Your task to perform on an android device: Open location settings Image 0: 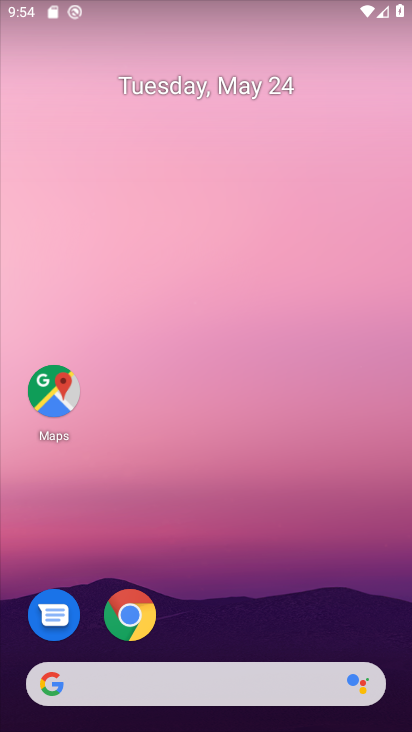
Step 0: drag from (365, 627) to (369, 273)
Your task to perform on an android device: Open location settings Image 1: 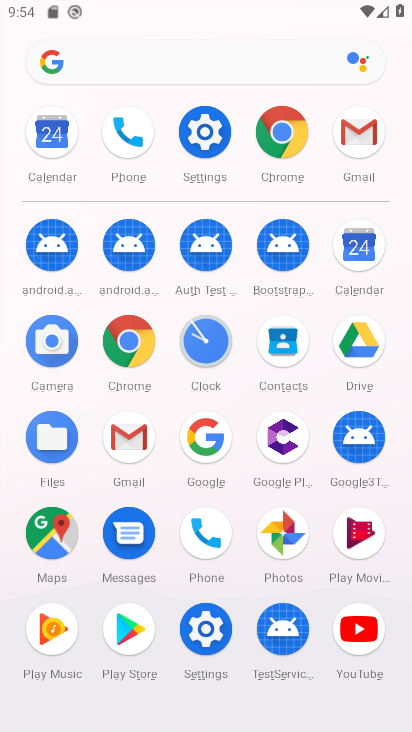
Step 1: click (205, 645)
Your task to perform on an android device: Open location settings Image 2: 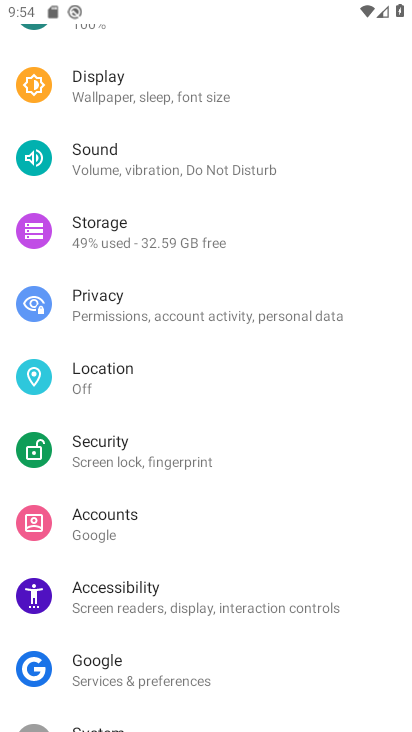
Step 2: drag from (319, 409) to (308, 484)
Your task to perform on an android device: Open location settings Image 3: 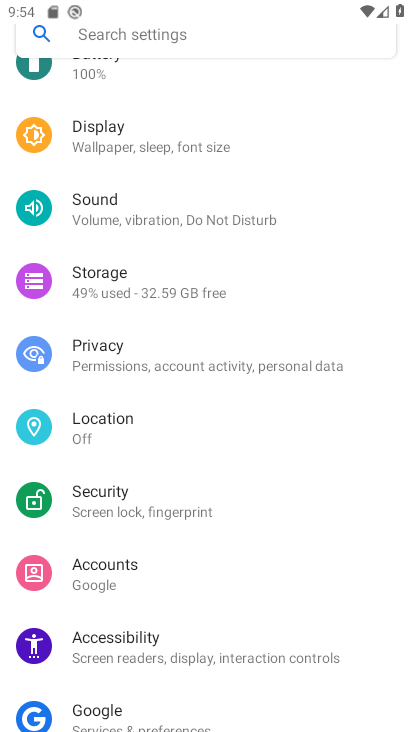
Step 3: drag from (360, 295) to (340, 416)
Your task to perform on an android device: Open location settings Image 4: 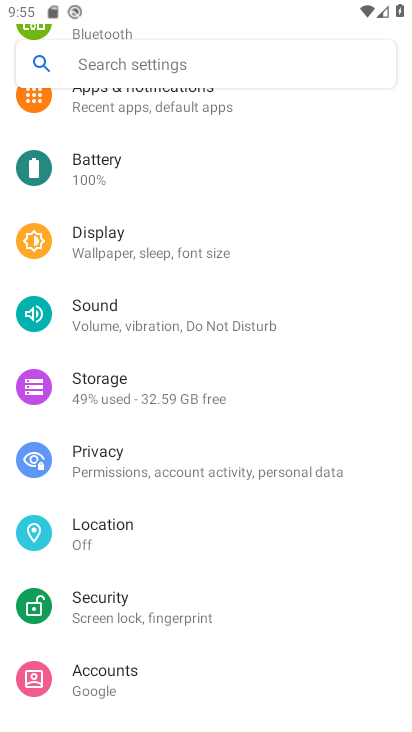
Step 4: drag from (358, 242) to (360, 367)
Your task to perform on an android device: Open location settings Image 5: 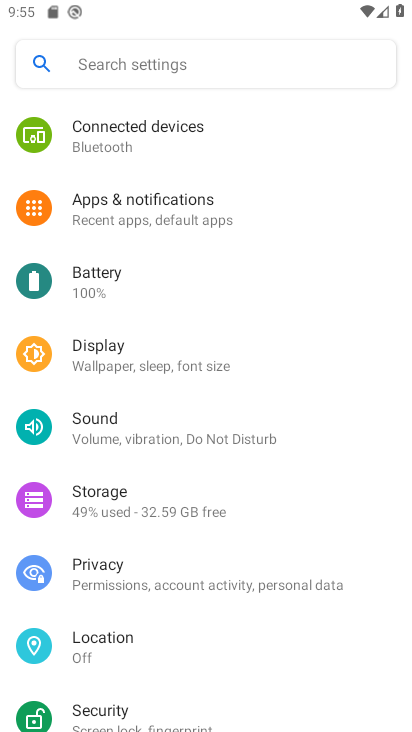
Step 5: drag from (369, 242) to (360, 408)
Your task to perform on an android device: Open location settings Image 6: 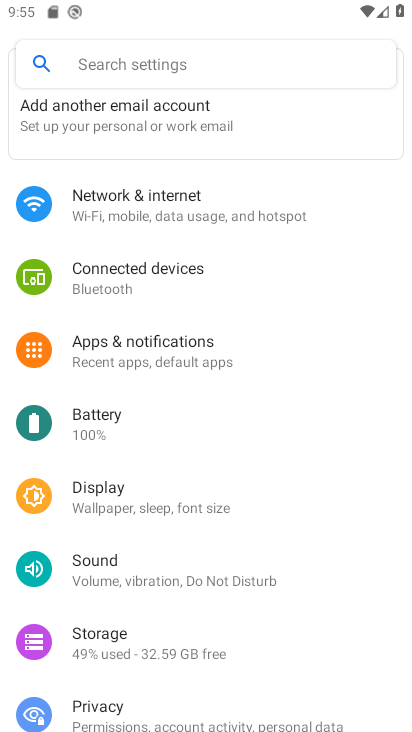
Step 6: drag from (373, 232) to (379, 282)
Your task to perform on an android device: Open location settings Image 7: 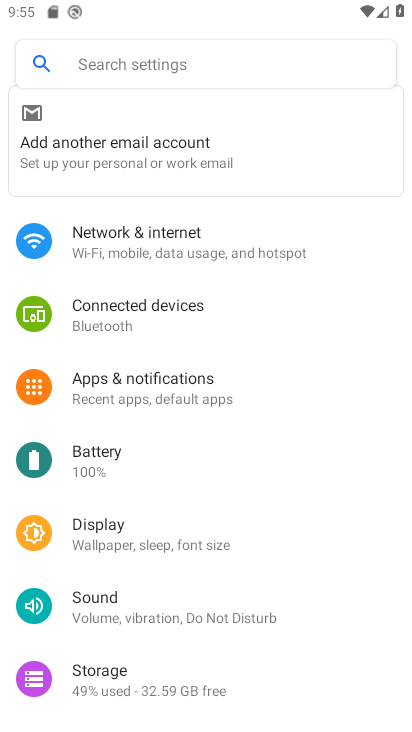
Step 7: drag from (368, 240) to (358, 435)
Your task to perform on an android device: Open location settings Image 8: 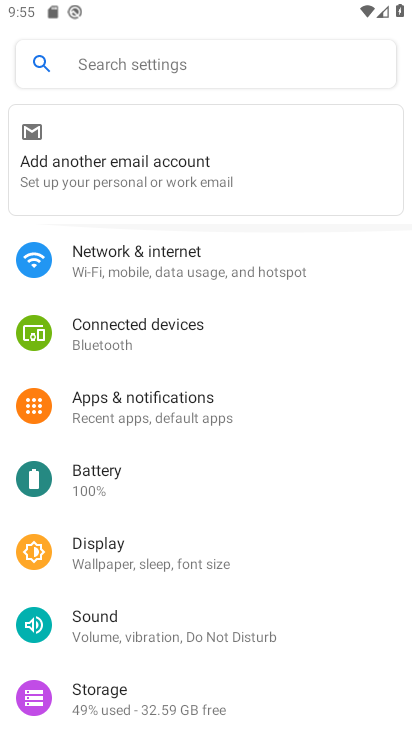
Step 8: drag from (328, 579) to (354, 437)
Your task to perform on an android device: Open location settings Image 9: 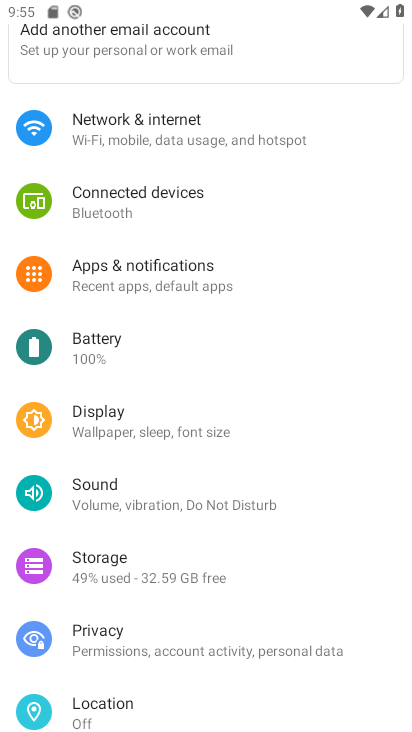
Step 9: drag from (328, 520) to (322, 430)
Your task to perform on an android device: Open location settings Image 10: 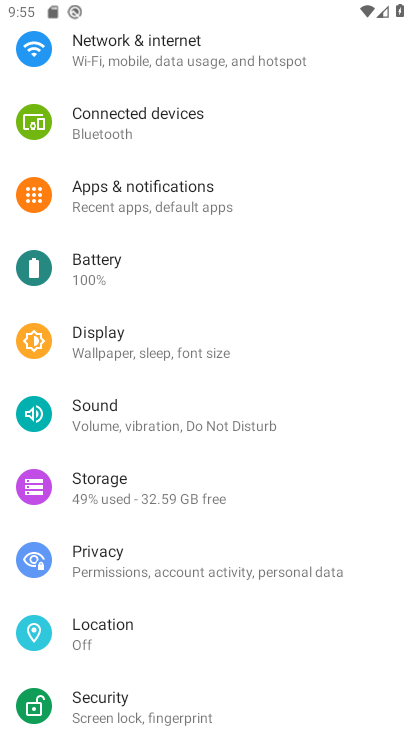
Step 10: drag from (310, 544) to (300, 384)
Your task to perform on an android device: Open location settings Image 11: 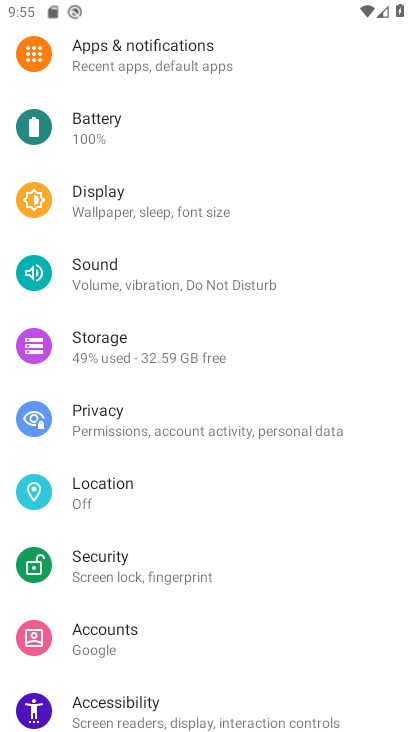
Step 11: drag from (317, 579) to (329, 464)
Your task to perform on an android device: Open location settings Image 12: 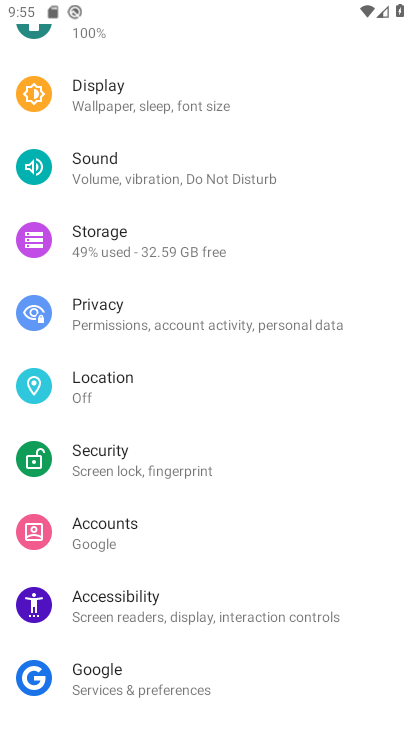
Step 12: click (111, 386)
Your task to perform on an android device: Open location settings Image 13: 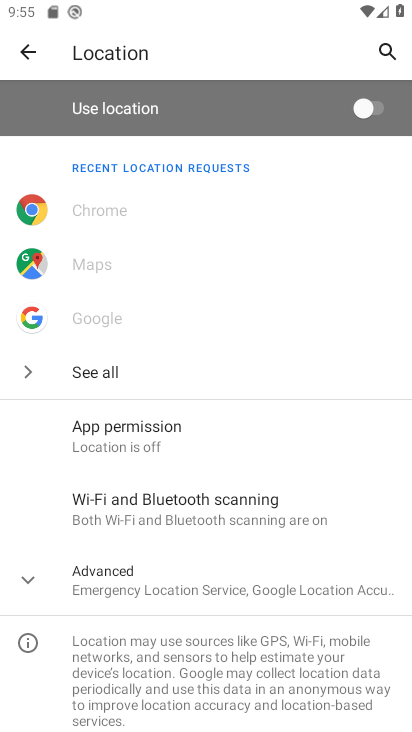
Step 13: task complete